Your task to perform on an android device: change your default location settings in chrome Image 0: 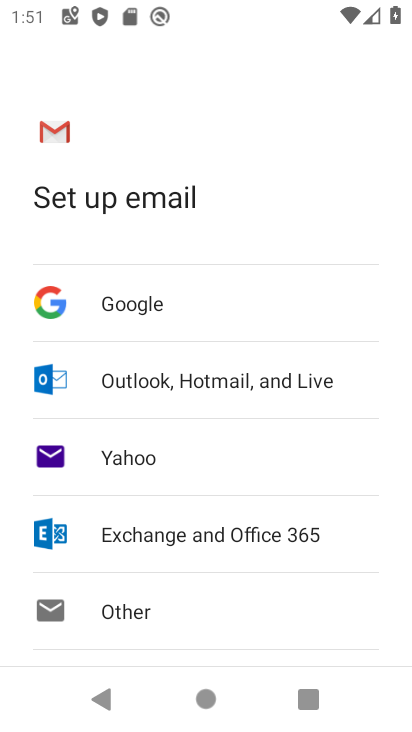
Step 0: press home button
Your task to perform on an android device: change your default location settings in chrome Image 1: 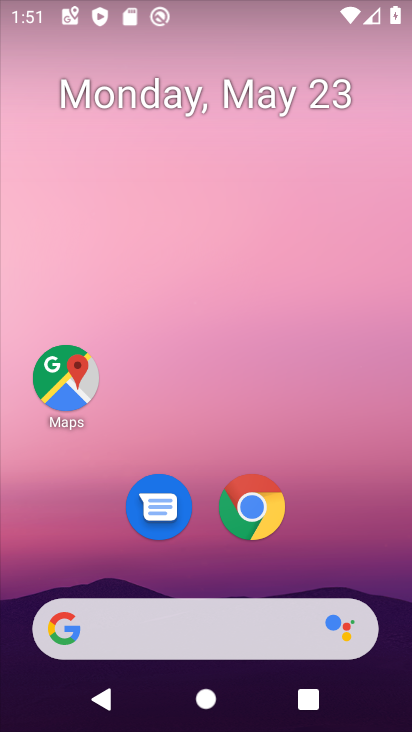
Step 1: drag from (257, 635) to (270, 159)
Your task to perform on an android device: change your default location settings in chrome Image 2: 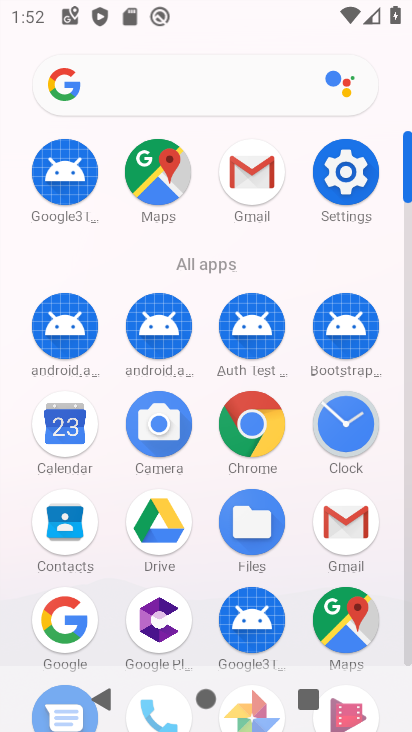
Step 2: click (251, 426)
Your task to perform on an android device: change your default location settings in chrome Image 3: 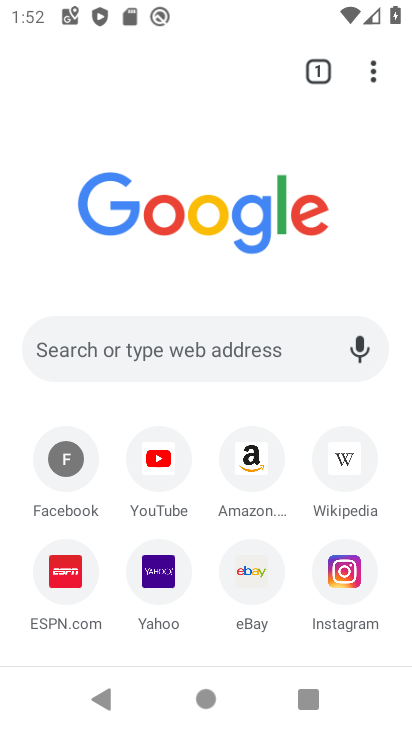
Step 3: click (371, 82)
Your task to perform on an android device: change your default location settings in chrome Image 4: 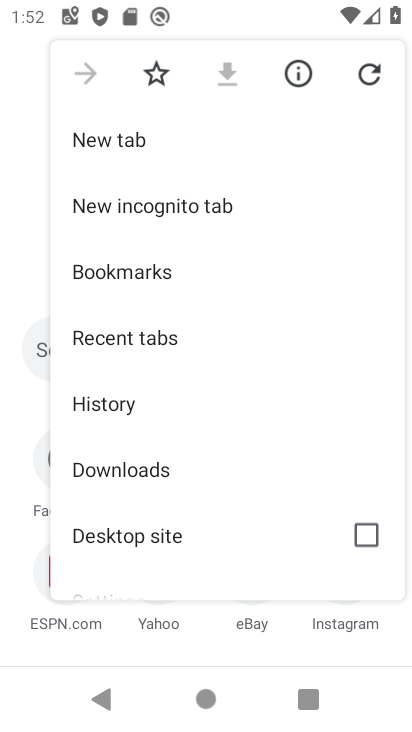
Step 4: drag from (154, 545) to (143, 221)
Your task to perform on an android device: change your default location settings in chrome Image 5: 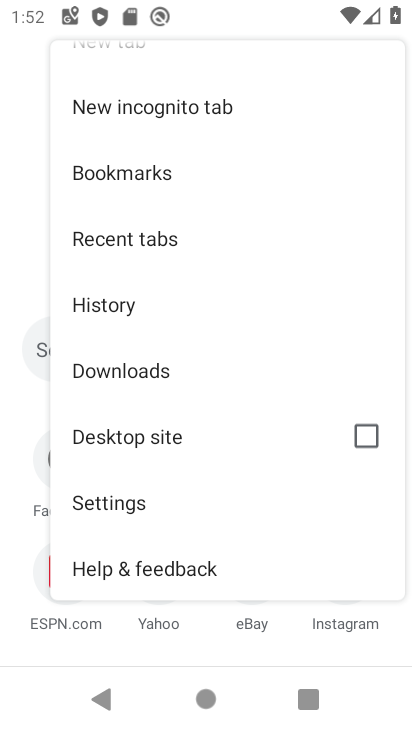
Step 5: click (109, 498)
Your task to perform on an android device: change your default location settings in chrome Image 6: 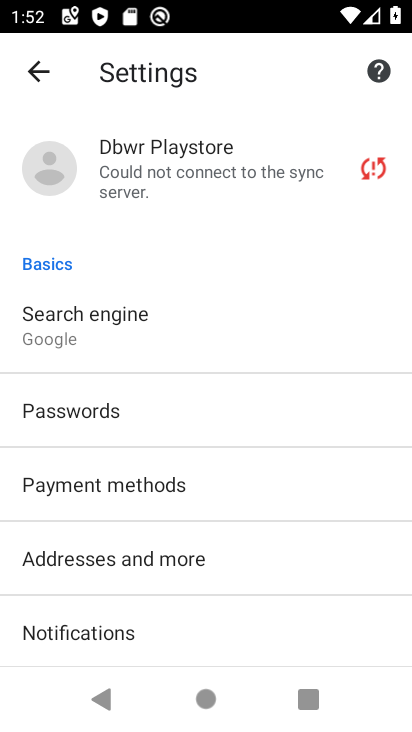
Step 6: drag from (180, 649) to (219, 277)
Your task to perform on an android device: change your default location settings in chrome Image 7: 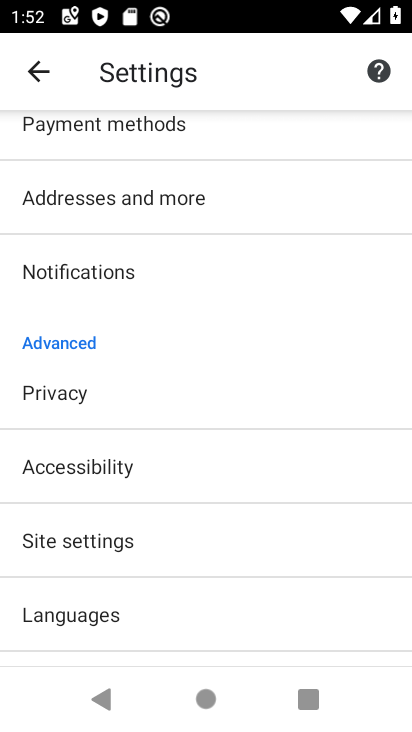
Step 7: drag from (113, 627) to (124, 333)
Your task to perform on an android device: change your default location settings in chrome Image 8: 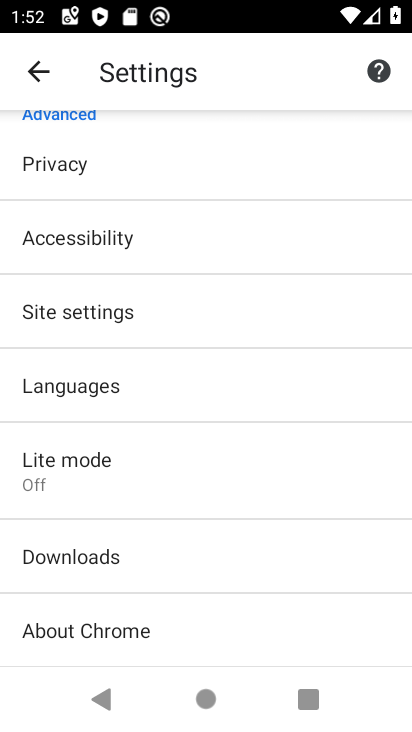
Step 8: click (85, 310)
Your task to perform on an android device: change your default location settings in chrome Image 9: 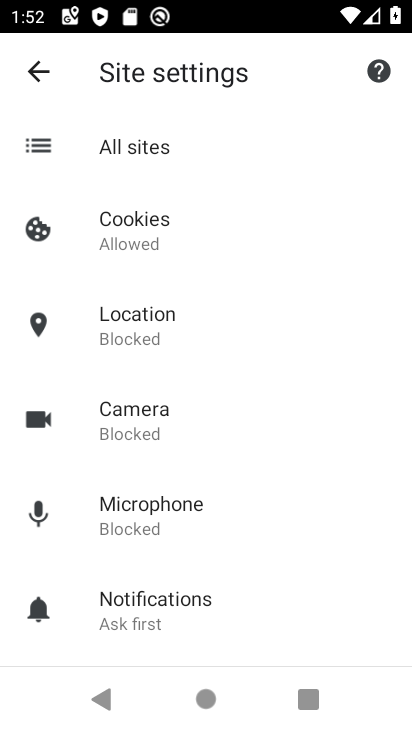
Step 9: click (115, 305)
Your task to perform on an android device: change your default location settings in chrome Image 10: 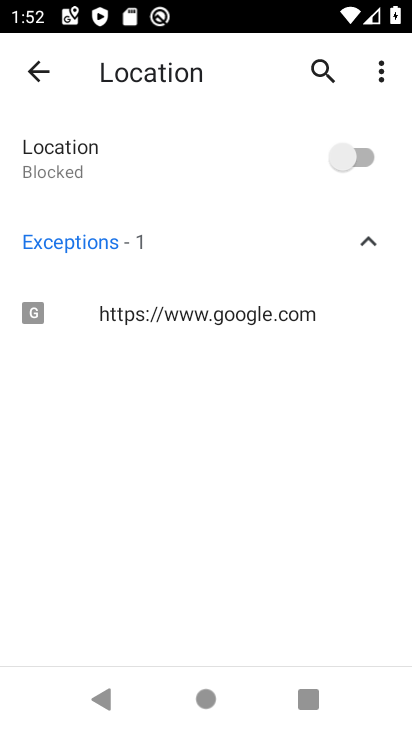
Step 10: click (367, 158)
Your task to perform on an android device: change your default location settings in chrome Image 11: 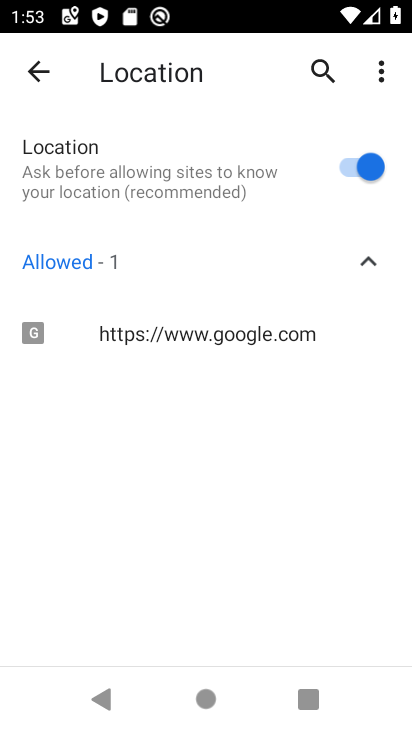
Step 11: task complete